Your task to perform on an android device: Open Google Chrome and open the bookmarks view Image 0: 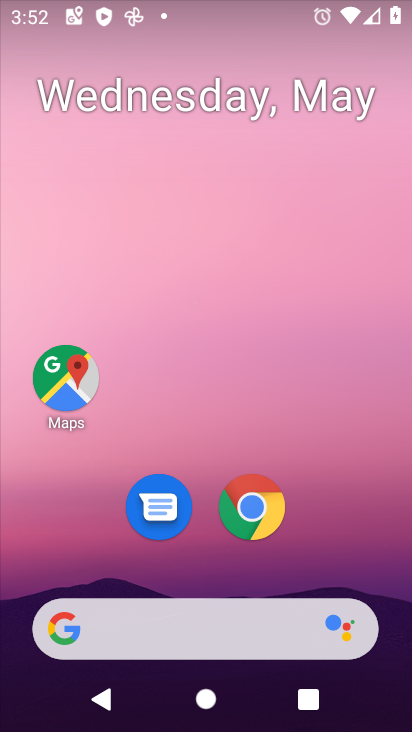
Step 0: click (252, 507)
Your task to perform on an android device: Open Google Chrome and open the bookmarks view Image 1: 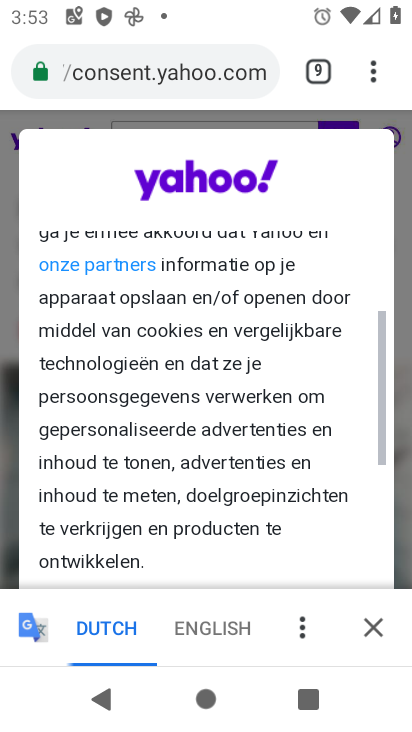
Step 1: click (359, 61)
Your task to perform on an android device: Open Google Chrome and open the bookmarks view Image 2: 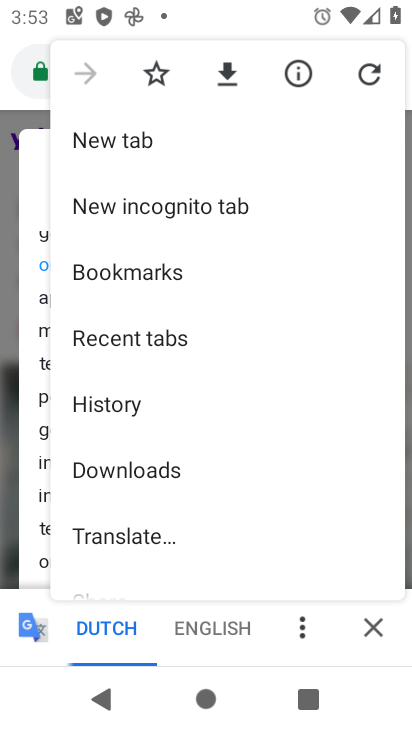
Step 2: click (185, 258)
Your task to perform on an android device: Open Google Chrome and open the bookmarks view Image 3: 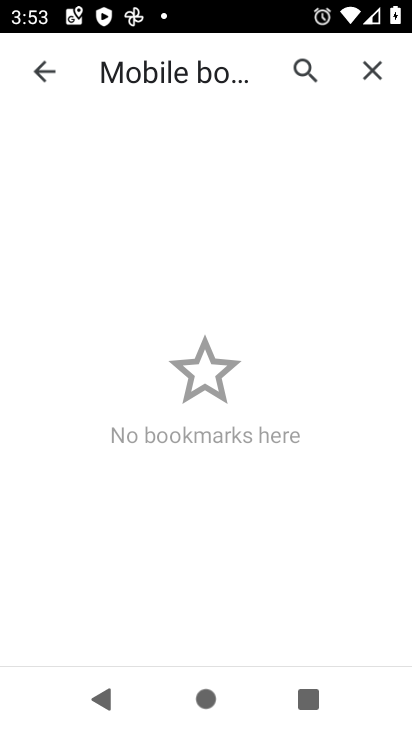
Step 3: task complete